Your task to perform on an android device: add a contact Image 0: 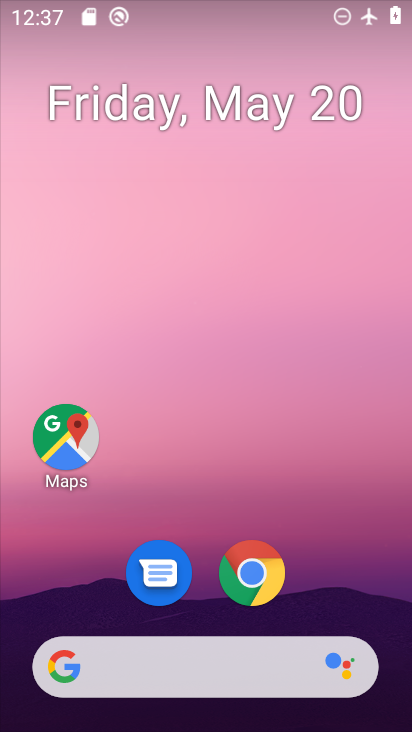
Step 0: drag from (219, 713) to (216, 294)
Your task to perform on an android device: add a contact Image 1: 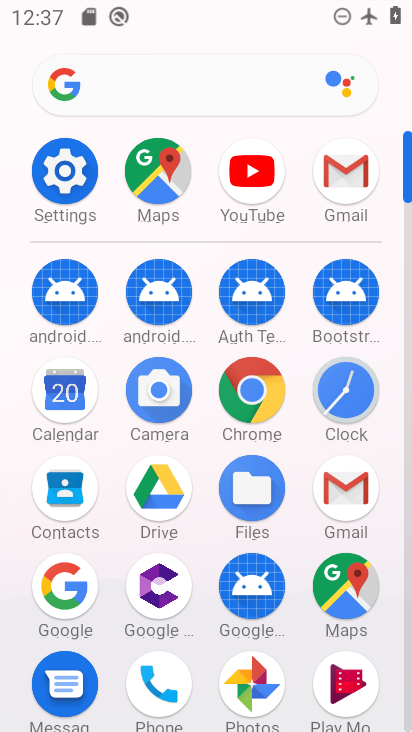
Step 1: click (54, 496)
Your task to perform on an android device: add a contact Image 2: 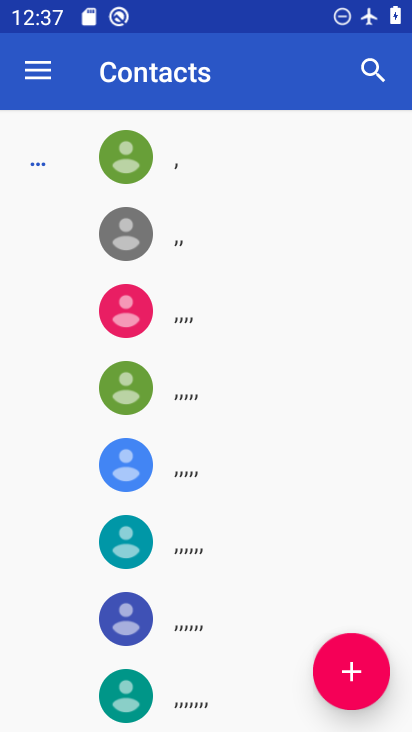
Step 2: click (355, 666)
Your task to perform on an android device: add a contact Image 3: 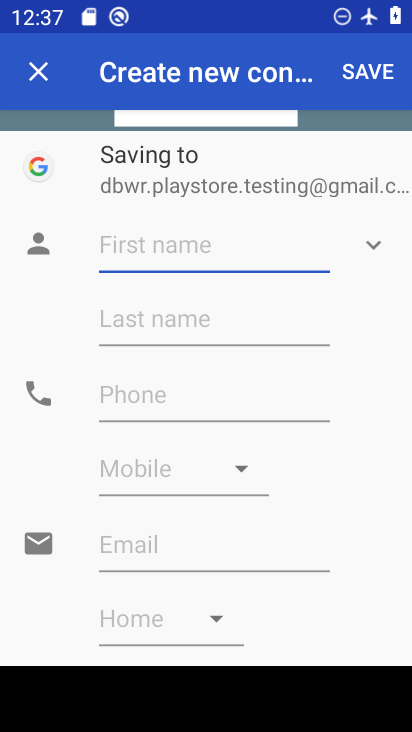
Step 3: type "viktor"
Your task to perform on an android device: add a contact Image 4: 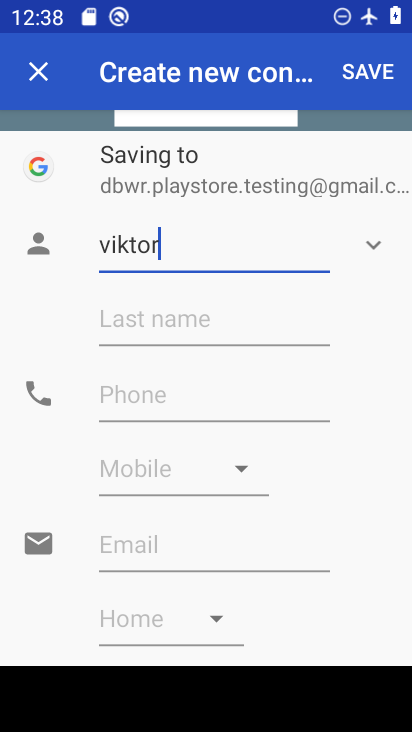
Step 4: click (150, 393)
Your task to perform on an android device: add a contact Image 5: 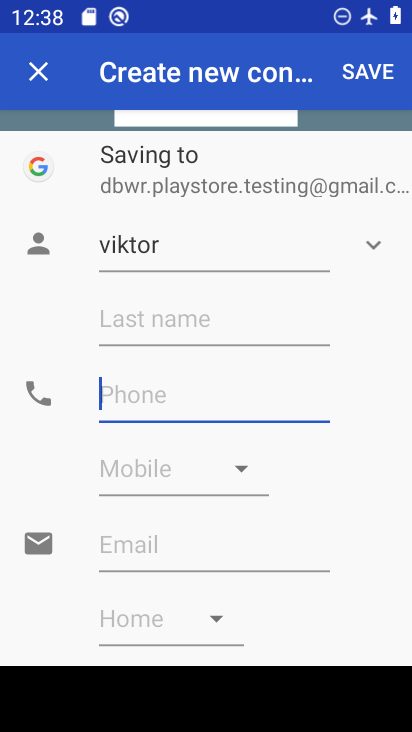
Step 5: type "8787654"
Your task to perform on an android device: add a contact Image 6: 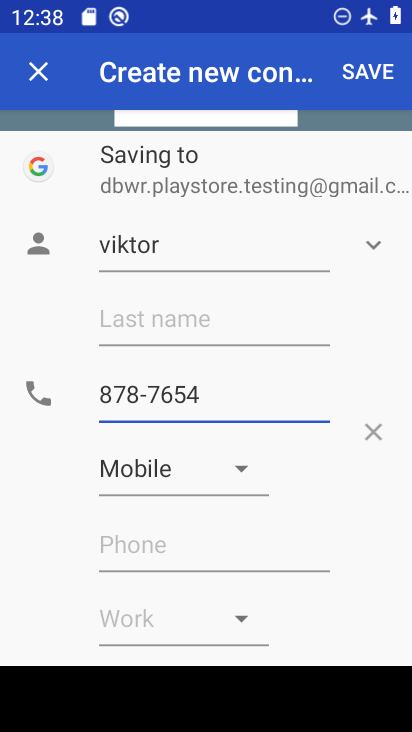
Step 6: click (364, 76)
Your task to perform on an android device: add a contact Image 7: 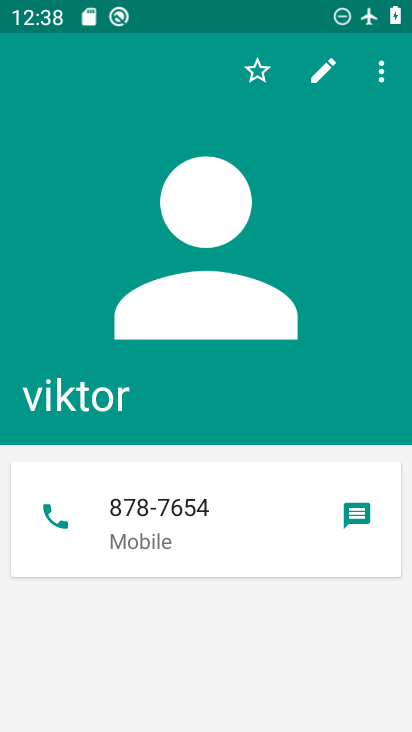
Step 7: task complete